Your task to perform on an android device: Open ESPN.com Image 0: 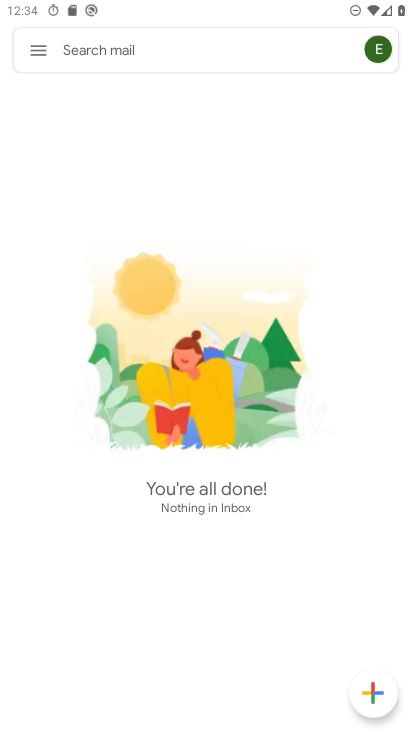
Step 0: press home button
Your task to perform on an android device: Open ESPN.com Image 1: 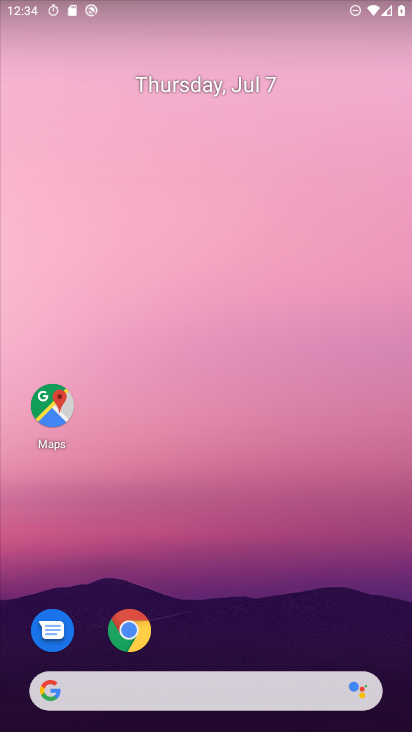
Step 1: click (130, 628)
Your task to perform on an android device: Open ESPN.com Image 2: 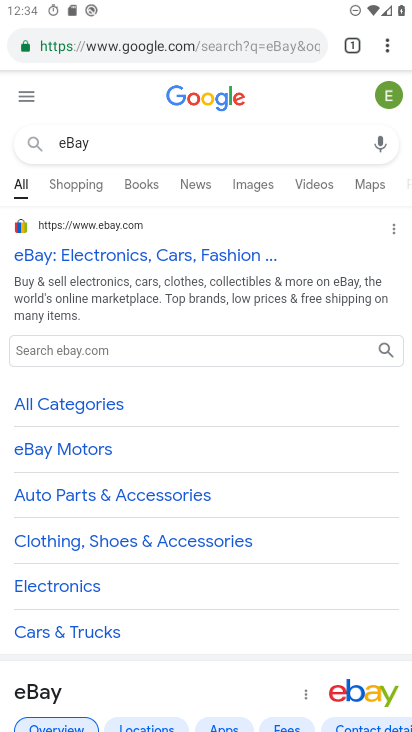
Step 2: click (214, 55)
Your task to perform on an android device: Open ESPN.com Image 3: 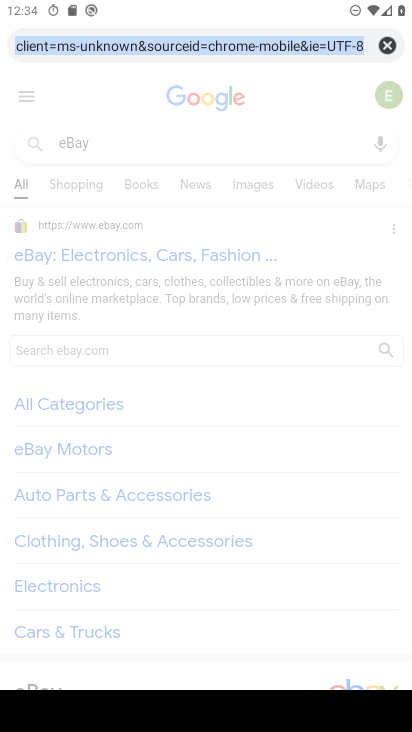
Step 3: type "ESPN.com"
Your task to perform on an android device: Open ESPN.com Image 4: 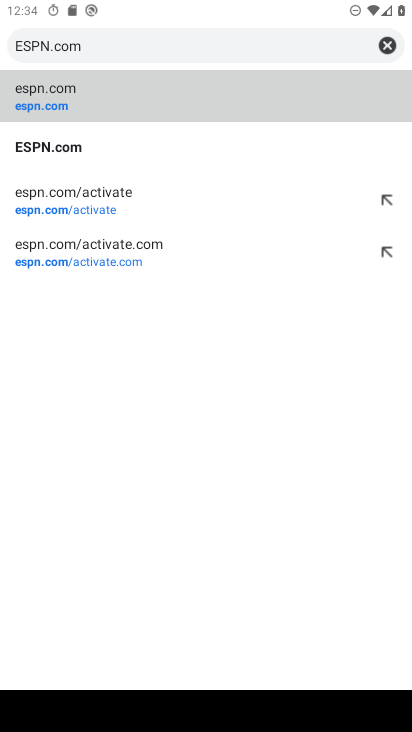
Step 4: click (65, 155)
Your task to perform on an android device: Open ESPN.com Image 5: 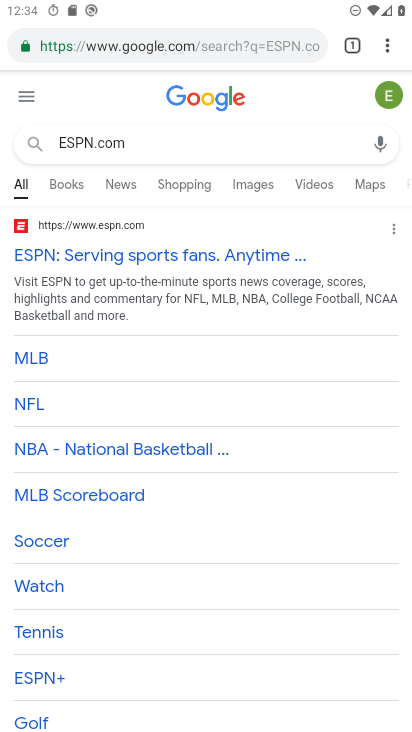
Step 5: task complete